Your task to perform on an android device: see sites visited before in the chrome app Image 0: 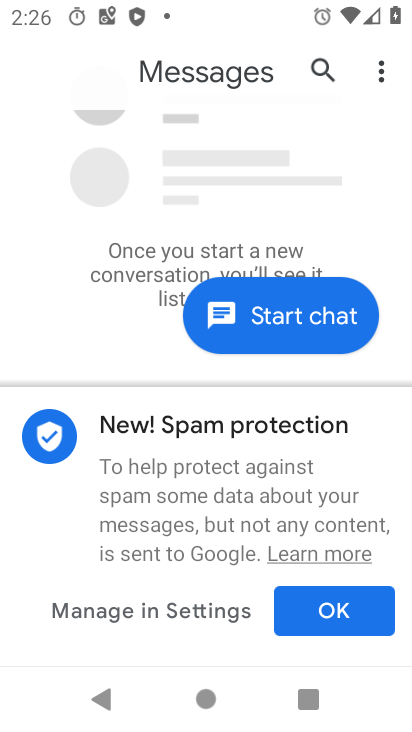
Step 0: press home button
Your task to perform on an android device: see sites visited before in the chrome app Image 1: 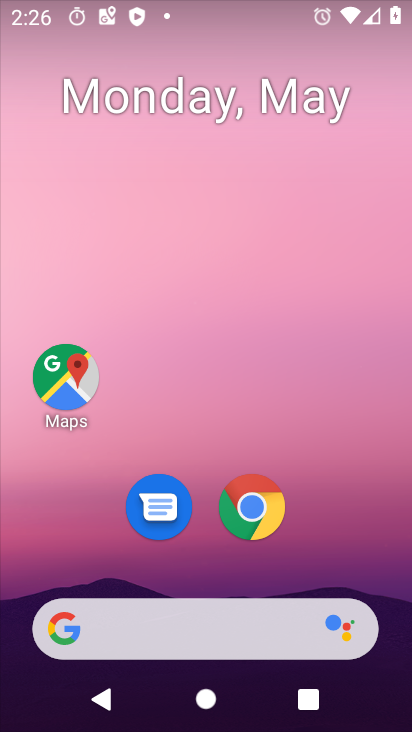
Step 1: click (253, 505)
Your task to perform on an android device: see sites visited before in the chrome app Image 2: 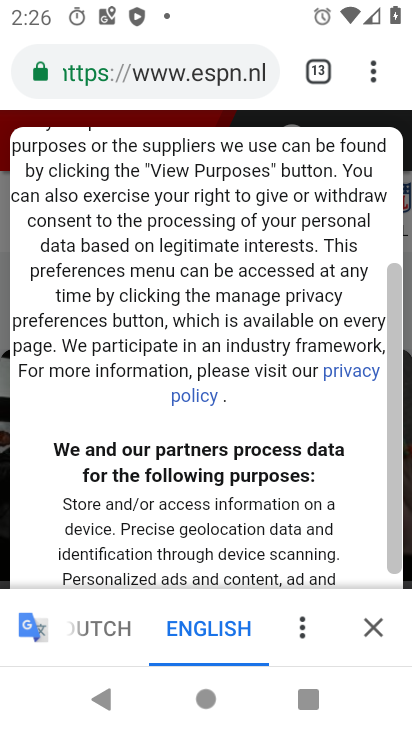
Step 2: click (371, 78)
Your task to perform on an android device: see sites visited before in the chrome app Image 3: 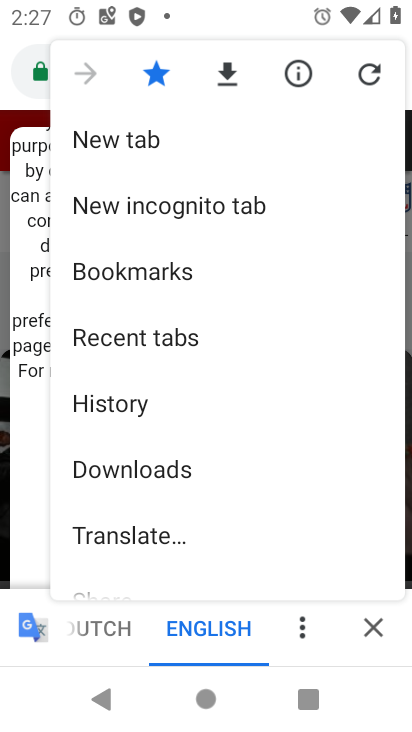
Step 3: click (113, 403)
Your task to perform on an android device: see sites visited before in the chrome app Image 4: 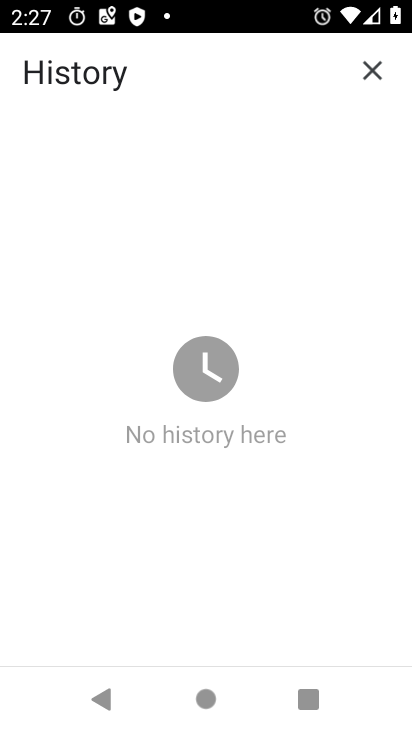
Step 4: task complete